Your task to perform on an android device: Go to display settings Image 0: 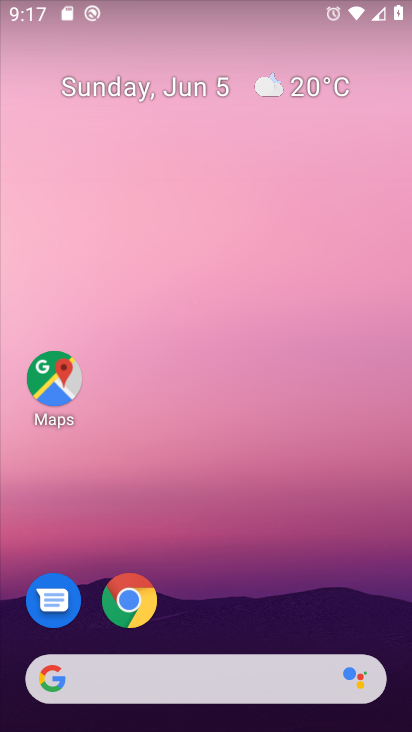
Step 0: drag from (228, 577) to (219, 0)
Your task to perform on an android device: Go to display settings Image 1: 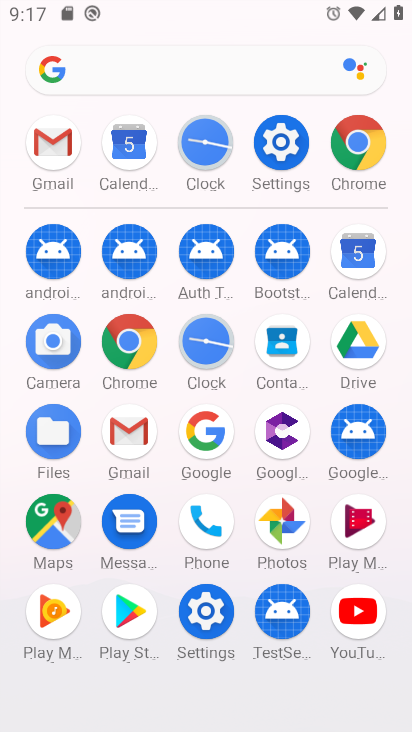
Step 1: click (280, 144)
Your task to perform on an android device: Go to display settings Image 2: 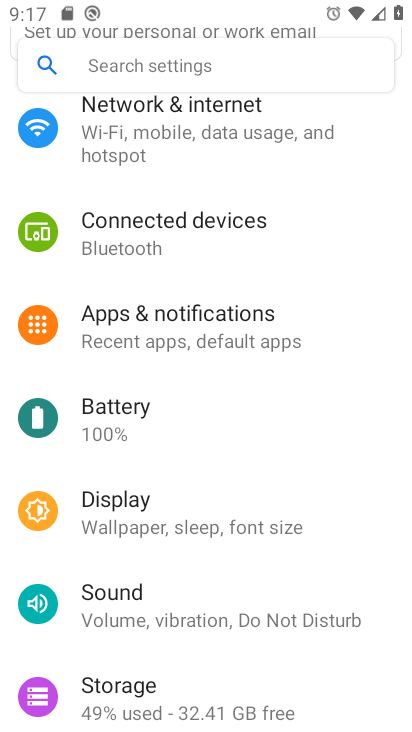
Step 2: click (219, 507)
Your task to perform on an android device: Go to display settings Image 3: 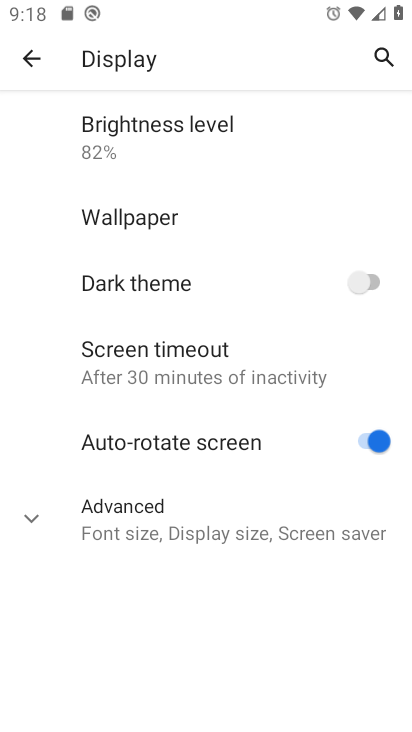
Step 3: click (30, 516)
Your task to perform on an android device: Go to display settings Image 4: 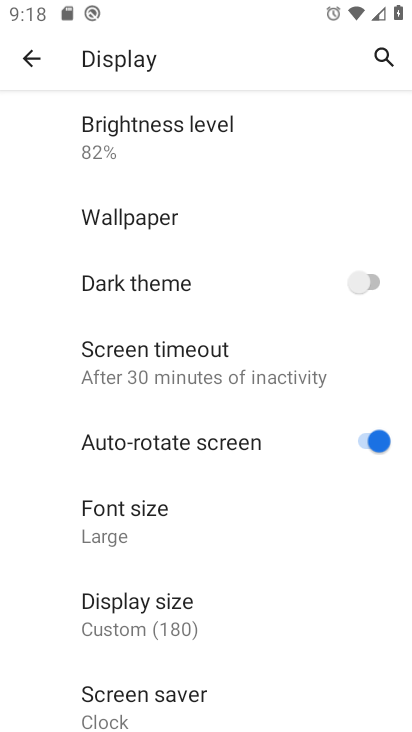
Step 4: task complete